Your task to perform on an android device: Open display settings Image 0: 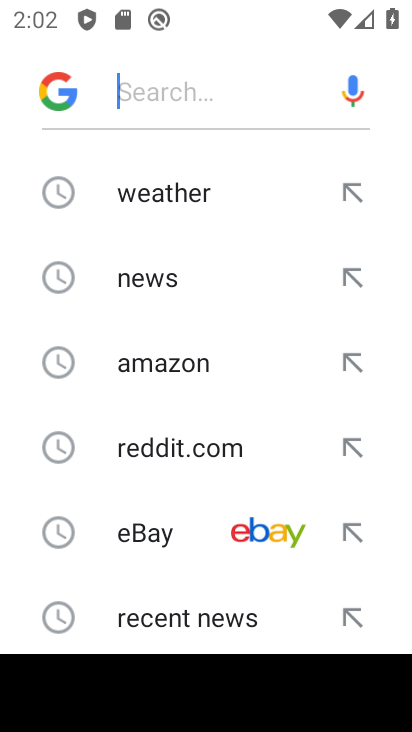
Step 0: press back button
Your task to perform on an android device: Open display settings Image 1: 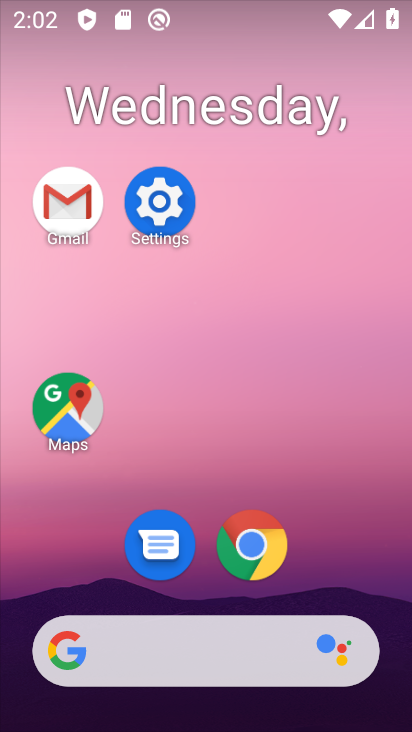
Step 1: click (166, 184)
Your task to perform on an android device: Open display settings Image 2: 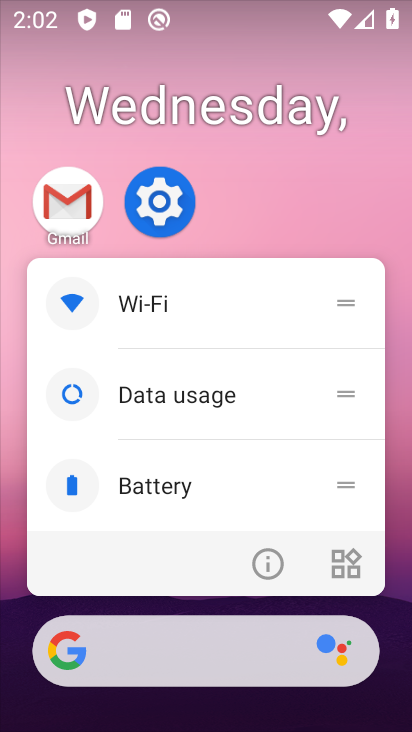
Step 2: click (170, 207)
Your task to perform on an android device: Open display settings Image 3: 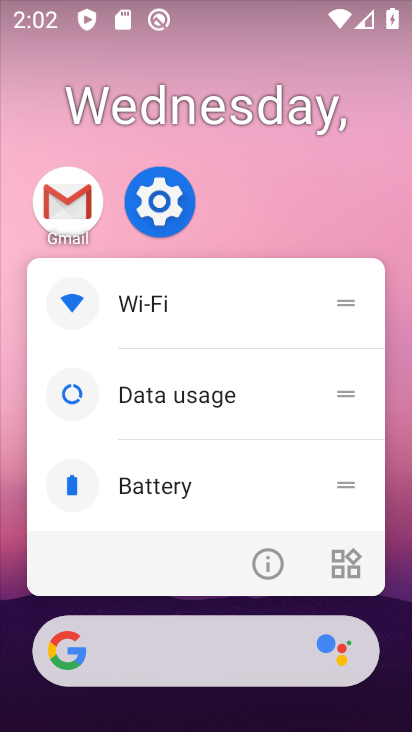
Step 3: click (170, 207)
Your task to perform on an android device: Open display settings Image 4: 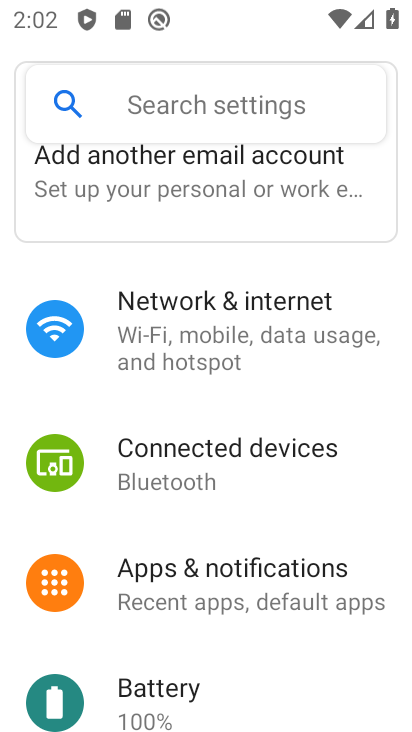
Step 4: drag from (241, 619) to (312, 271)
Your task to perform on an android device: Open display settings Image 5: 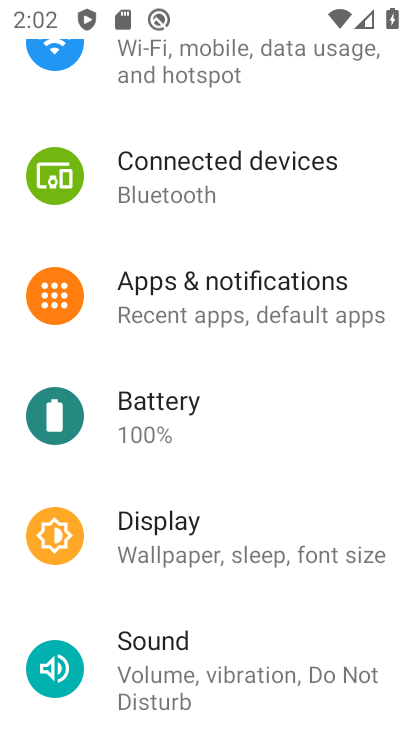
Step 5: click (303, 556)
Your task to perform on an android device: Open display settings Image 6: 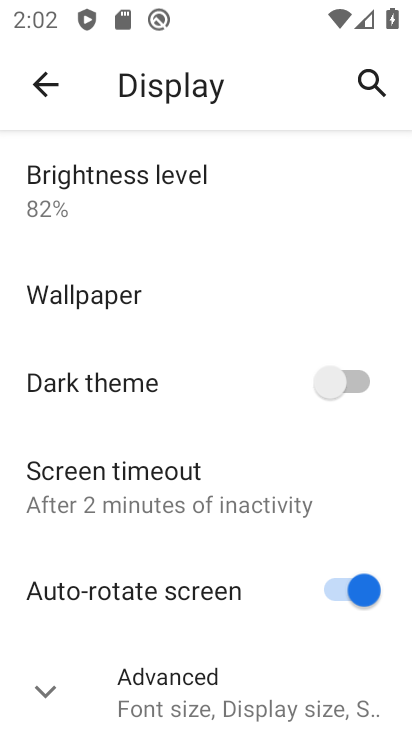
Step 6: task complete